Your task to perform on an android device: Open display settings Image 0: 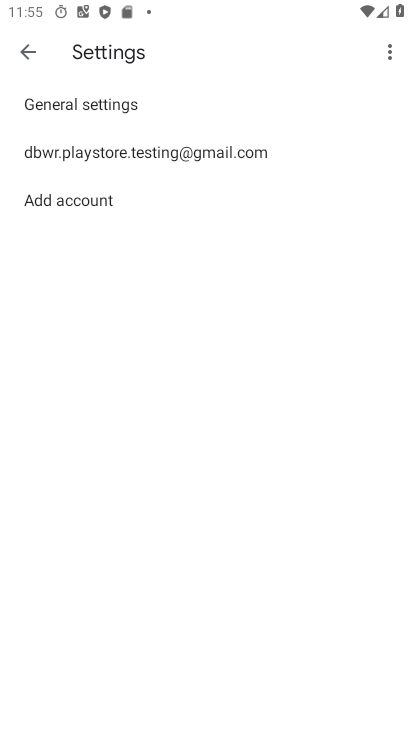
Step 0: press home button
Your task to perform on an android device: Open display settings Image 1: 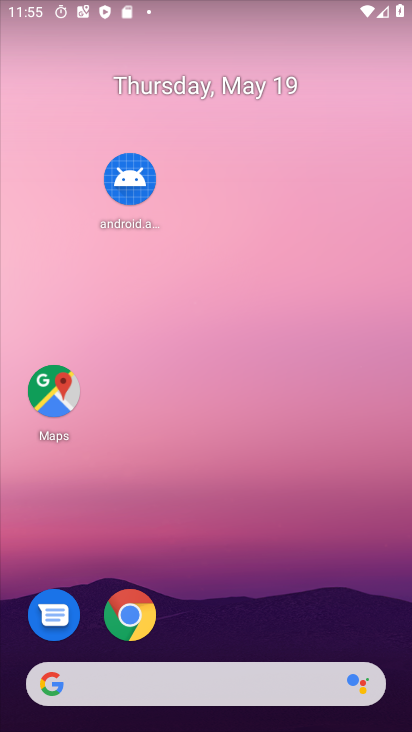
Step 1: drag from (305, 523) to (327, 13)
Your task to perform on an android device: Open display settings Image 2: 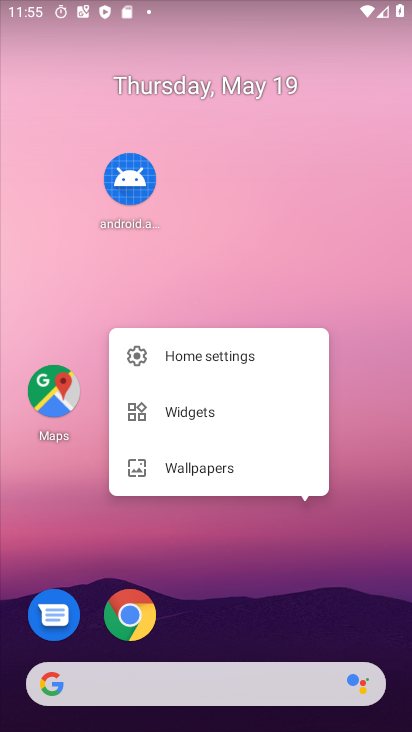
Step 2: drag from (369, 262) to (317, 3)
Your task to perform on an android device: Open display settings Image 3: 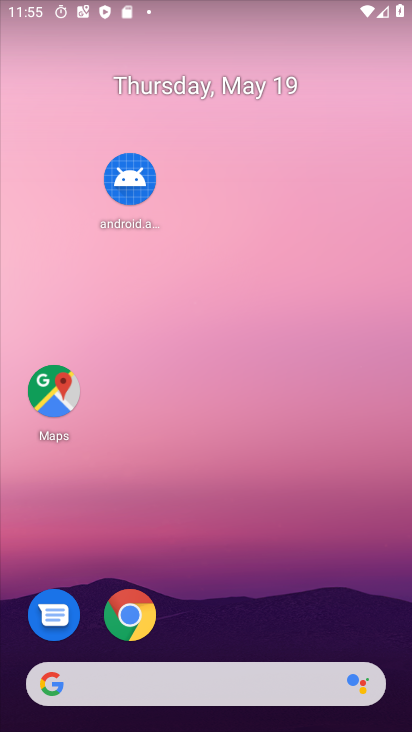
Step 3: drag from (344, 501) to (375, 16)
Your task to perform on an android device: Open display settings Image 4: 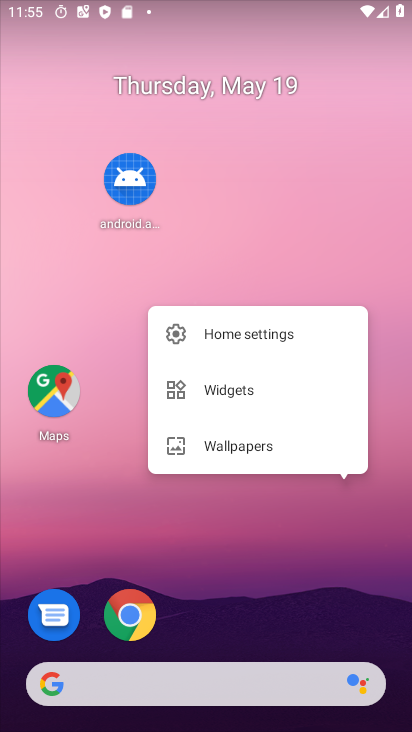
Step 4: drag from (318, 239) to (411, 221)
Your task to perform on an android device: Open display settings Image 5: 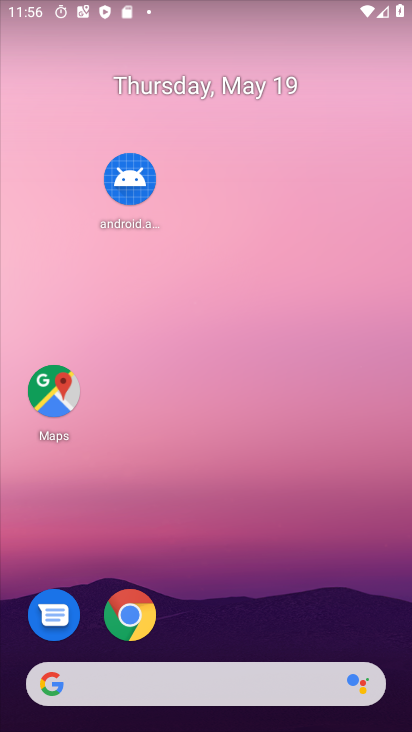
Step 5: drag from (326, 581) to (332, 99)
Your task to perform on an android device: Open display settings Image 6: 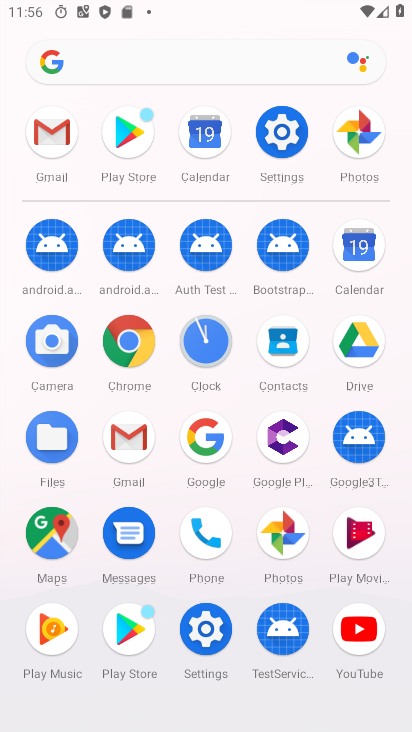
Step 6: click (280, 135)
Your task to perform on an android device: Open display settings Image 7: 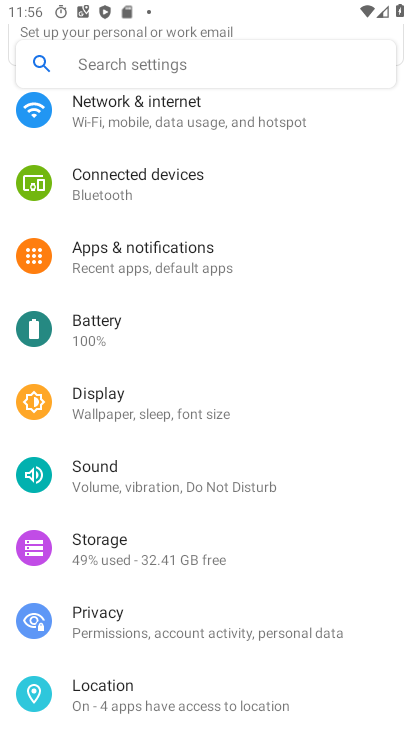
Step 7: click (55, 411)
Your task to perform on an android device: Open display settings Image 8: 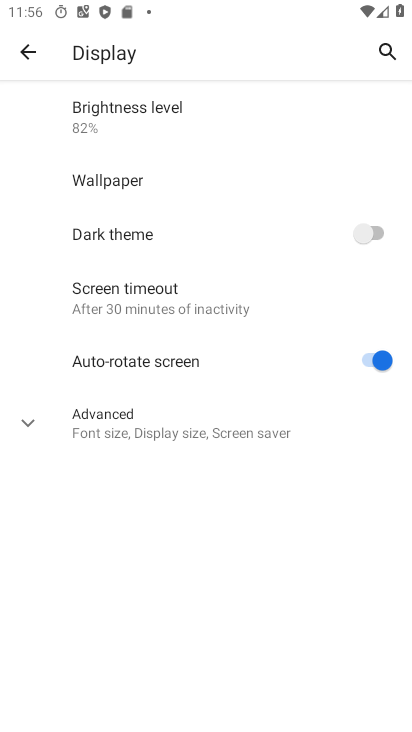
Step 8: task complete